Your task to perform on an android device: turn off improve location accuracy Image 0: 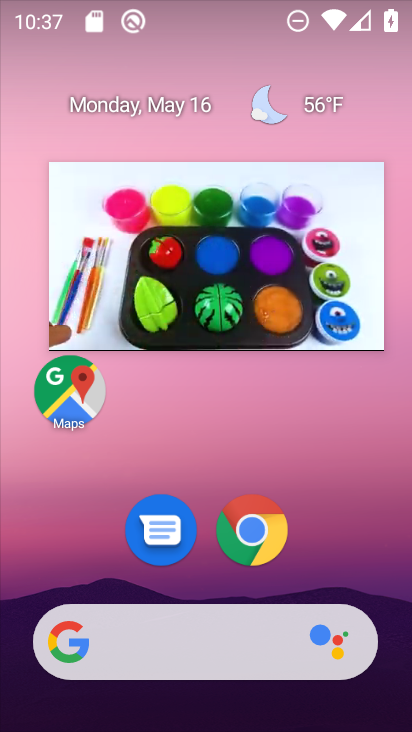
Step 0: drag from (225, 245) to (142, 721)
Your task to perform on an android device: turn off improve location accuracy Image 1: 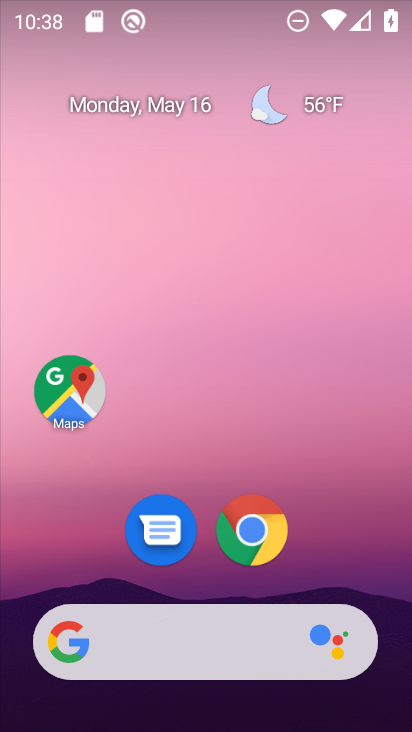
Step 1: drag from (195, 620) to (99, 64)
Your task to perform on an android device: turn off improve location accuracy Image 2: 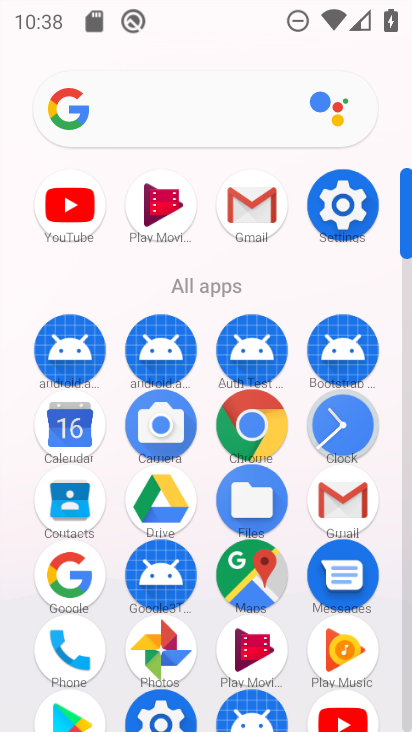
Step 2: click (349, 214)
Your task to perform on an android device: turn off improve location accuracy Image 3: 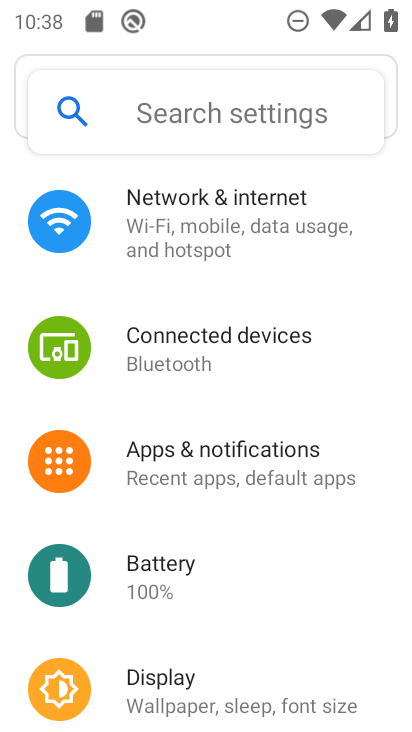
Step 3: drag from (196, 584) to (138, 32)
Your task to perform on an android device: turn off improve location accuracy Image 4: 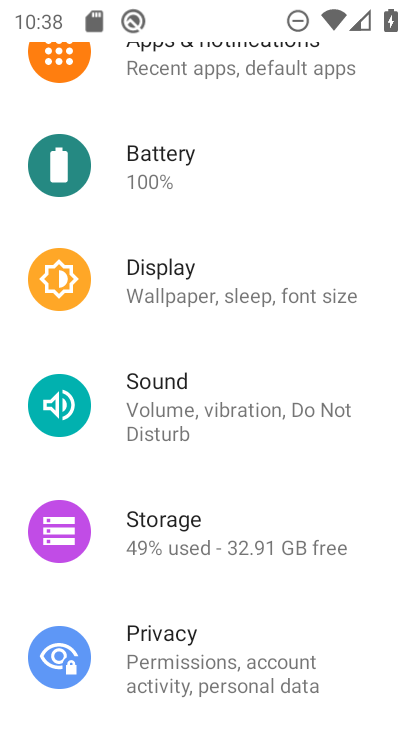
Step 4: drag from (153, 592) to (173, 0)
Your task to perform on an android device: turn off improve location accuracy Image 5: 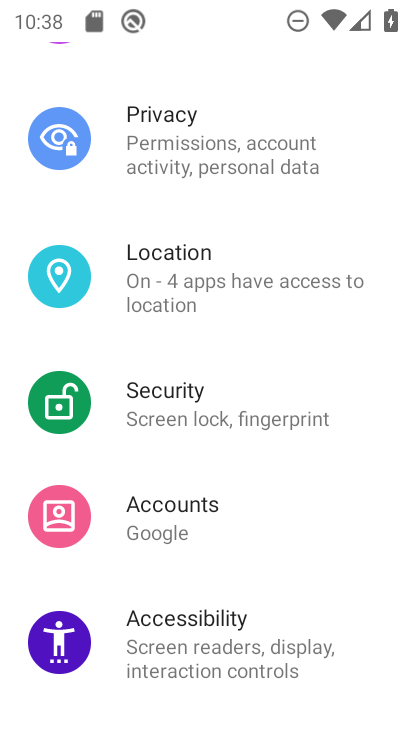
Step 5: click (176, 252)
Your task to perform on an android device: turn off improve location accuracy Image 6: 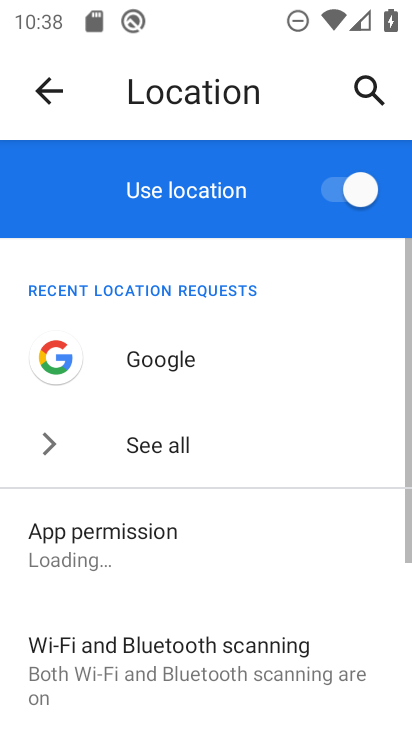
Step 6: drag from (232, 658) to (182, 178)
Your task to perform on an android device: turn off improve location accuracy Image 7: 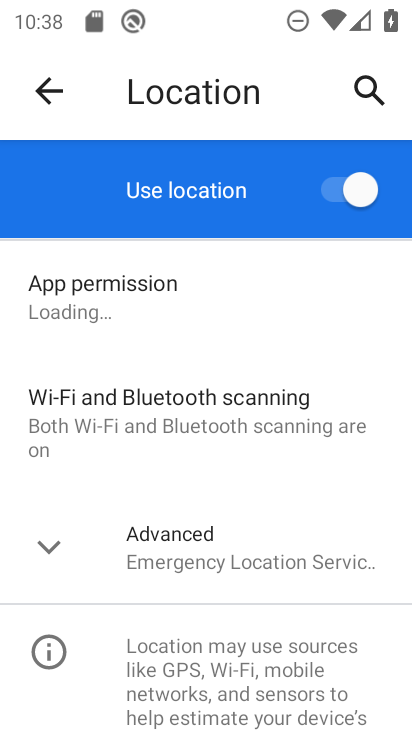
Step 7: click (182, 563)
Your task to perform on an android device: turn off improve location accuracy Image 8: 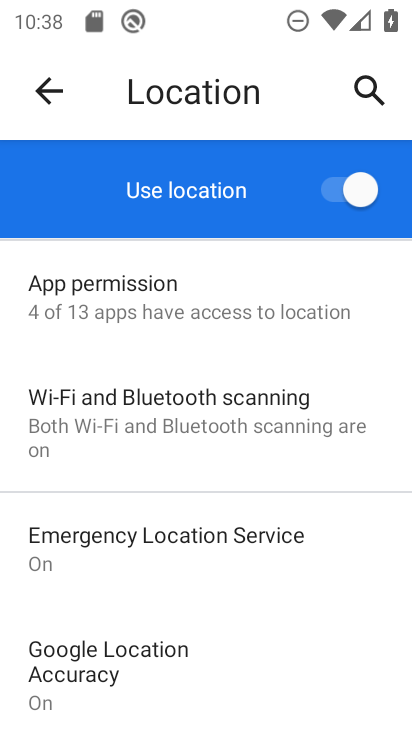
Step 8: click (134, 658)
Your task to perform on an android device: turn off improve location accuracy Image 9: 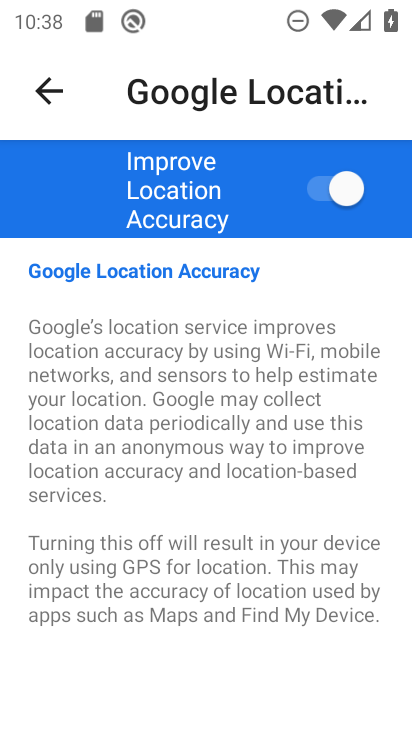
Step 9: click (350, 194)
Your task to perform on an android device: turn off improve location accuracy Image 10: 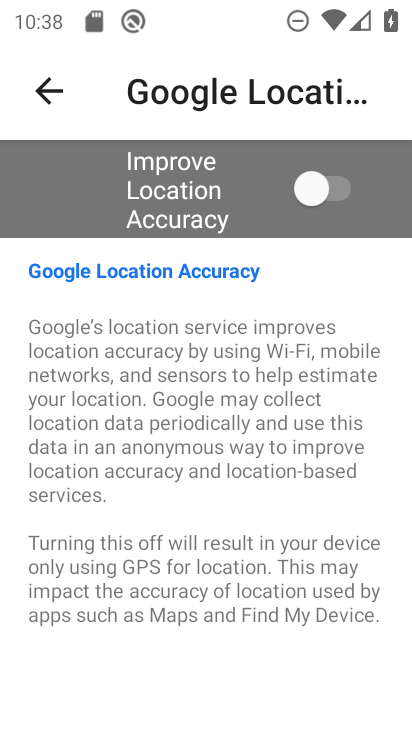
Step 10: task complete